Your task to perform on an android device: Open internet settings Image 0: 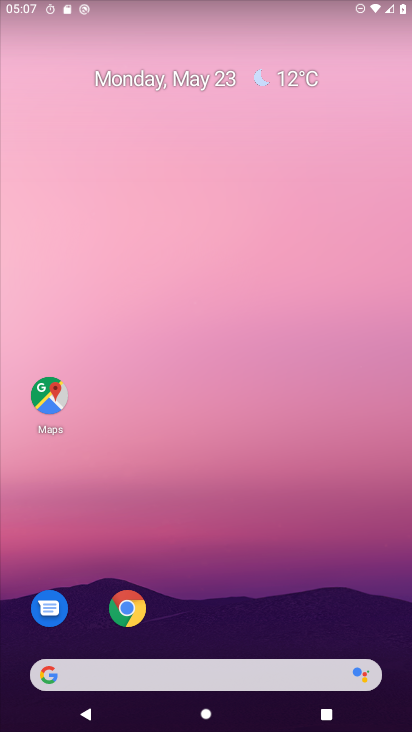
Step 0: drag from (328, 559) to (224, 6)
Your task to perform on an android device: Open internet settings Image 1: 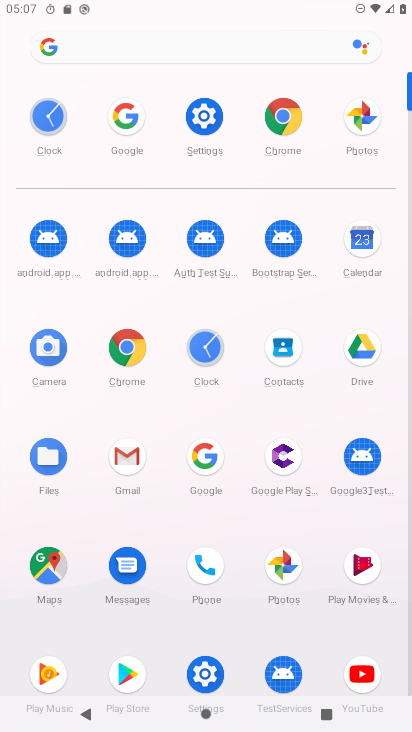
Step 1: click (125, 346)
Your task to perform on an android device: Open internet settings Image 2: 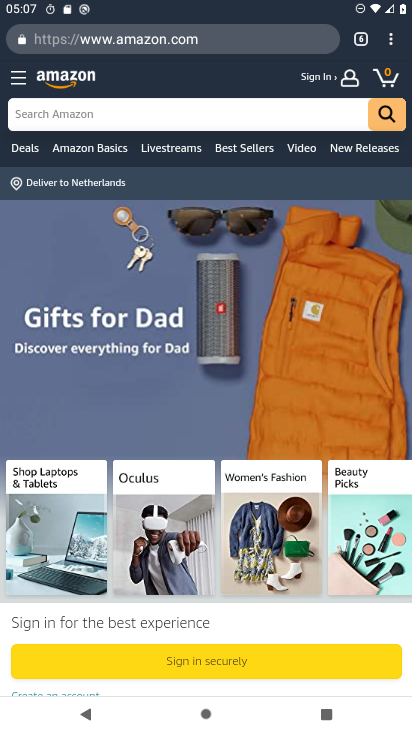
Step 2: press home button
Your task to perform on an android device: Open internet settings Image 3: 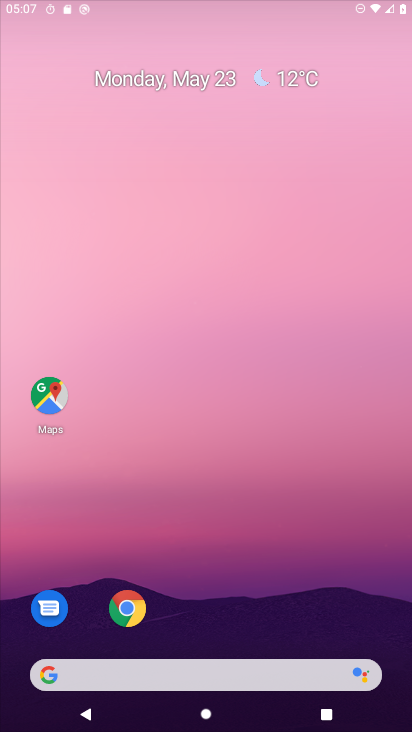
Step 3: drag from (290, 585) to (192, 13)
Your task to perform on an android device: Open internet settings Image 4: 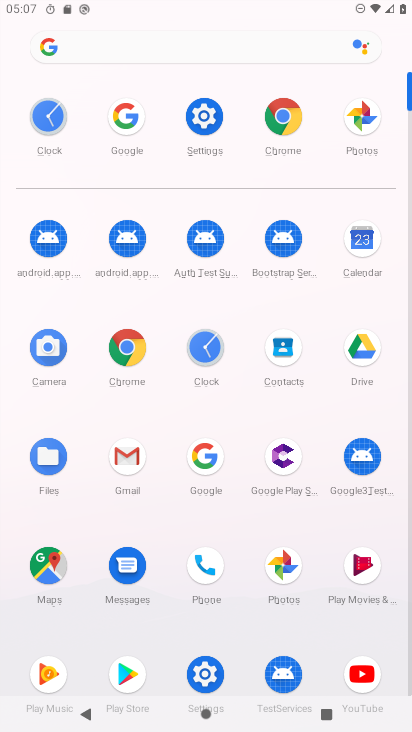
Step 4: click (213, 105)
Your task to perform on an android device: Open internet settings Image 5: 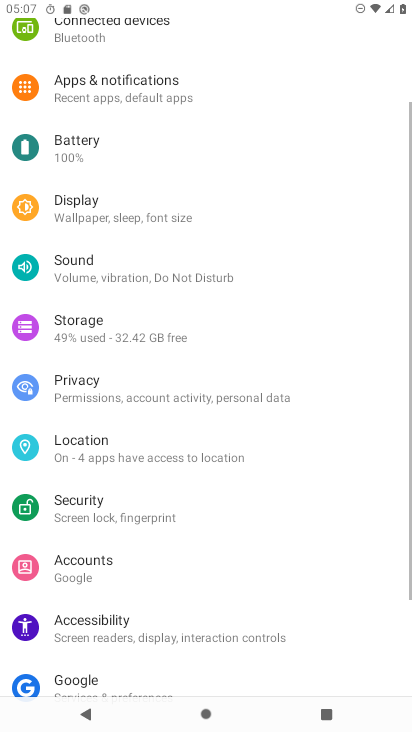
Step 5: drag from (181, 133) to (167, 626)
Your task to perform on an android device: Open internet settings Image 6: 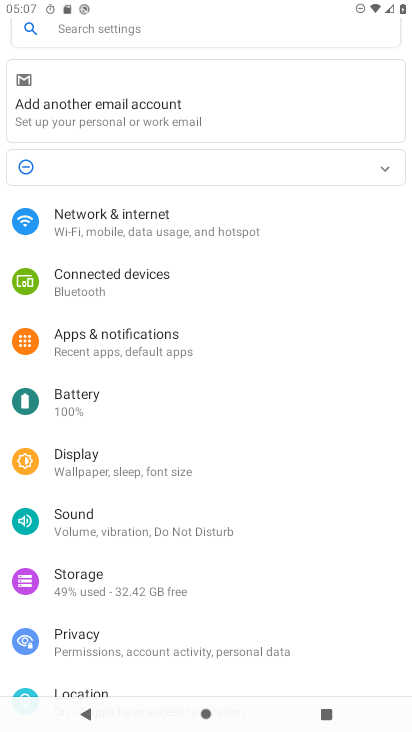
Step 6: click (196, 236)
Your task to perform on an android device: Open internet settings Image 7: 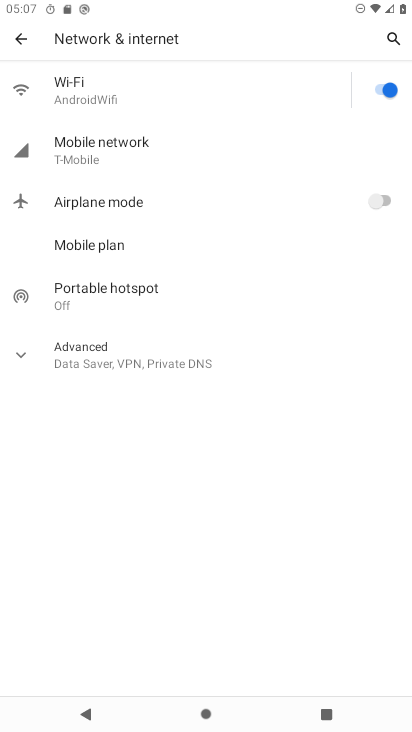
Step 7: task complete